Your task to perform on an android device: open device folders in google photos Image 0: 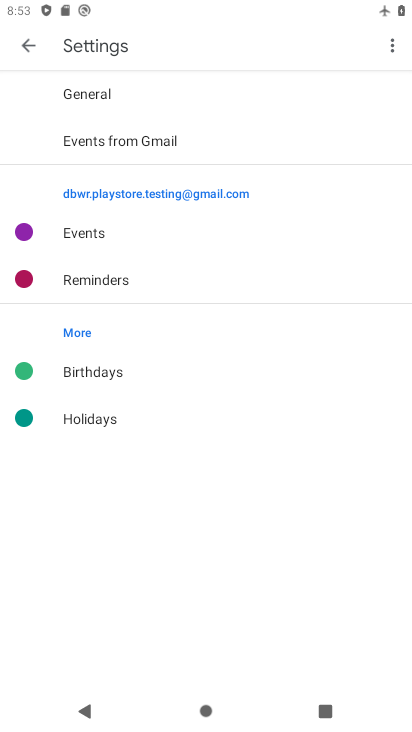
Step 0: press home button
Your task to perform on an android device: open device folders in google photos Image 1: 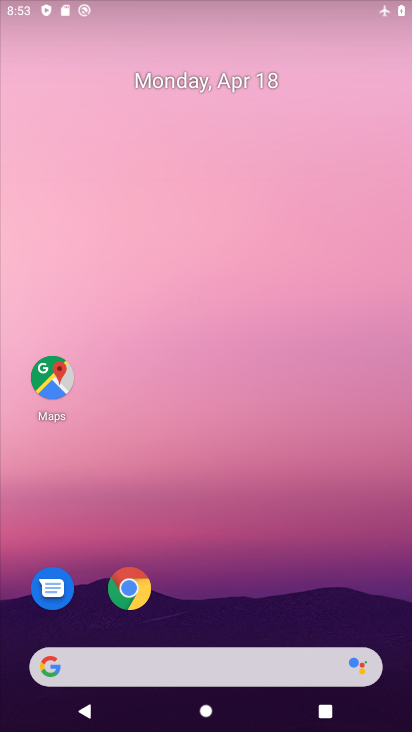
Step 1: drag from (202, 580) to (238, 177)
Your task to perform on an android device: open device folders in google photos Image 2: 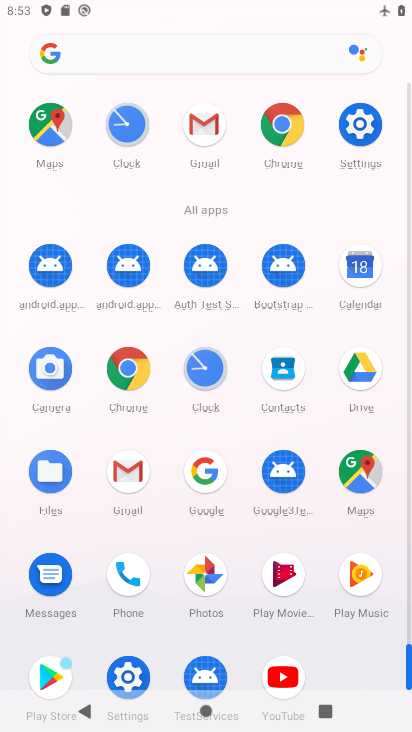
Step 2: click (204, 571)
Your task to perform on an android device: open device folders in google photos Image 3: 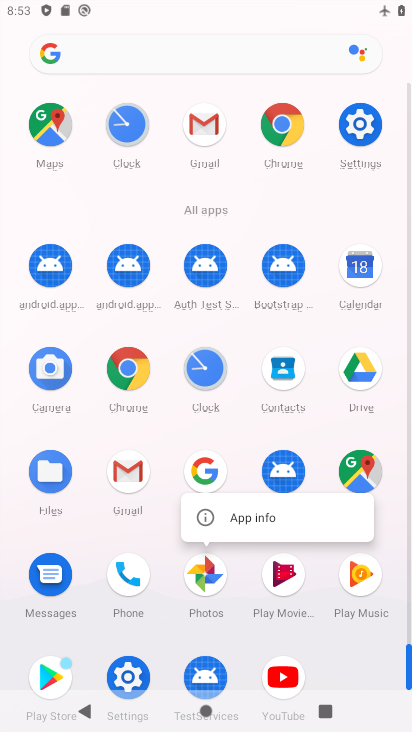
Step 3: click (204, 571)
Your task to perform on an android device: open device folders in google photos Image 4: 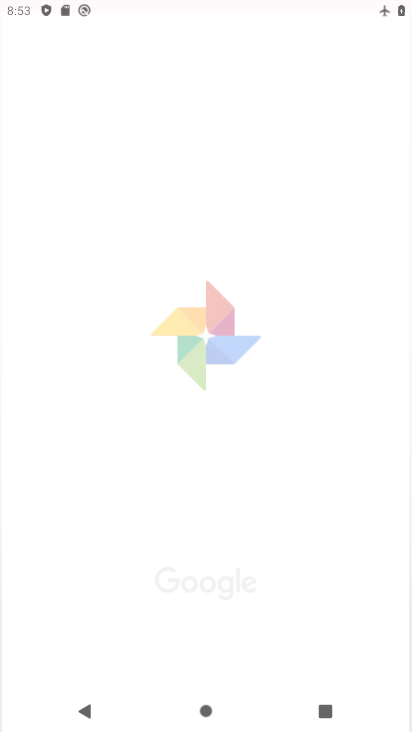
Step 4: click (204, 571)
Your task to perform on an android device: open device folders in google photos Image 5: 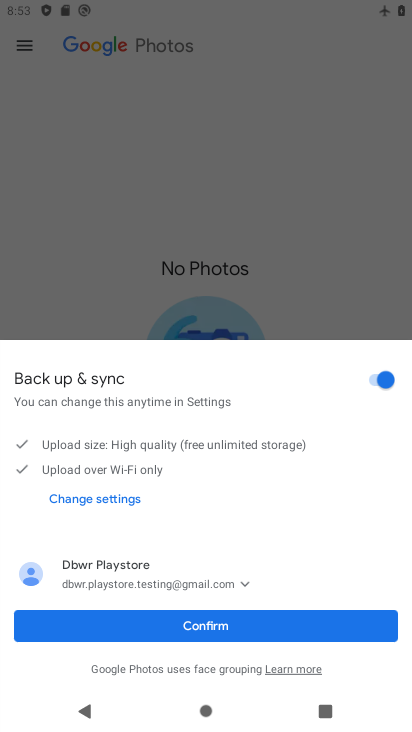
Step 5: click (207, 618)
Your task to perform on an android device: open device folders in google photos Image 6: 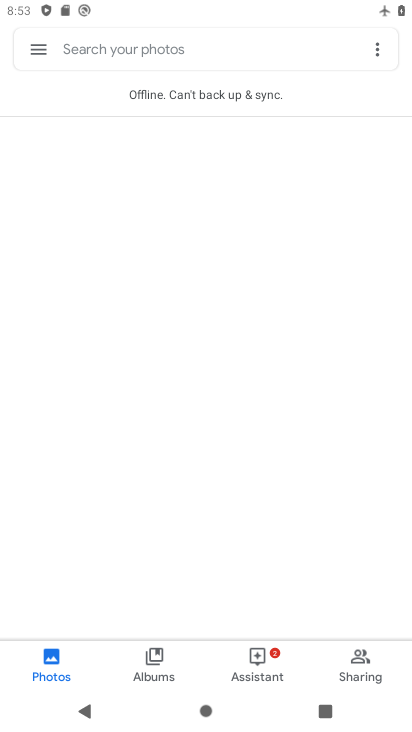
Step 6: click (154, 657)
Your task to perform on an android device: open device folders in google photos Image 7: 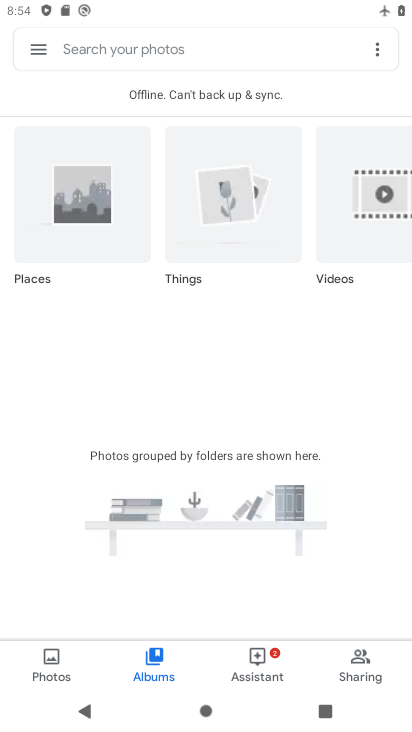
Step 7: click (56, 663)
Your task to perform on an android device: open device folders in google photos Image 8: 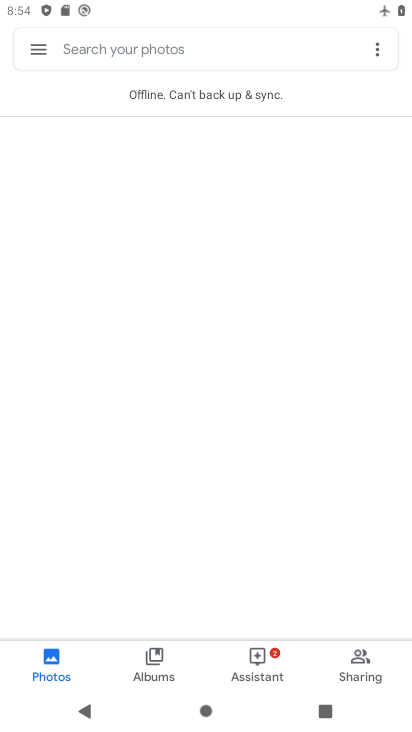
Step 8: click (140, 656)
Your task to perform on an android device: open device folders in google photos Image 9: 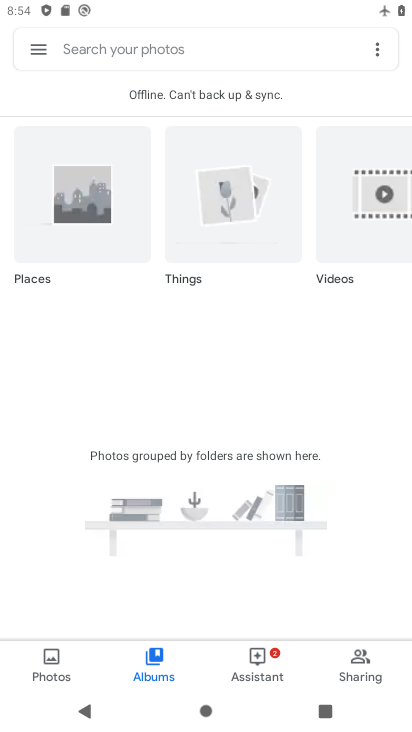
Step 9: click (48, 657)
Your task to perform on an android device: open device folders in google photos Image 10: 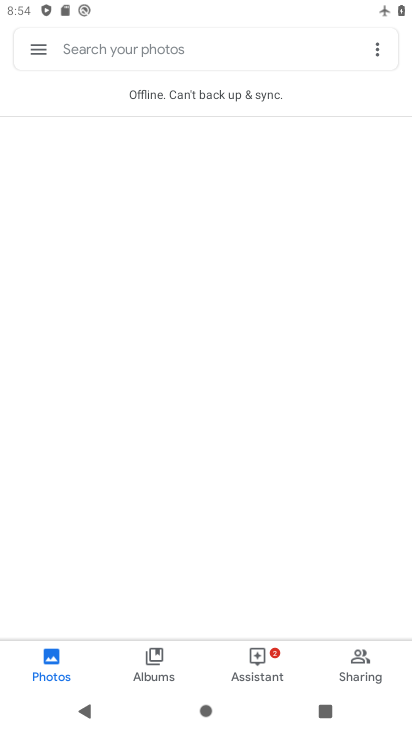
Step 10: click (162, 669)
Your task to perform on an android device: open device folders in google photos Image 11: 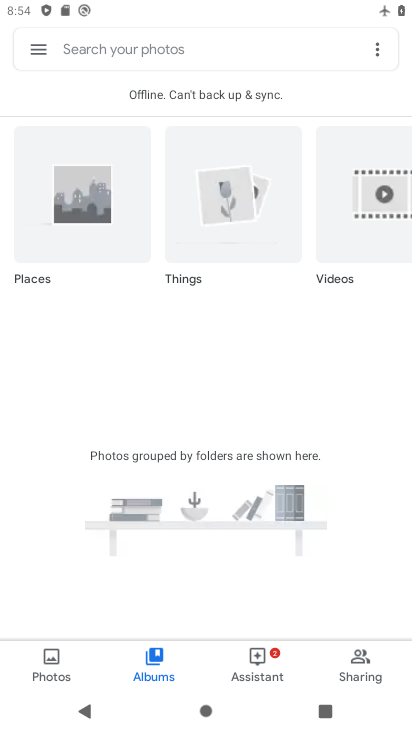
Step 11: task complete